Your task to perform on an android device: turn on sleep mode Image 0: 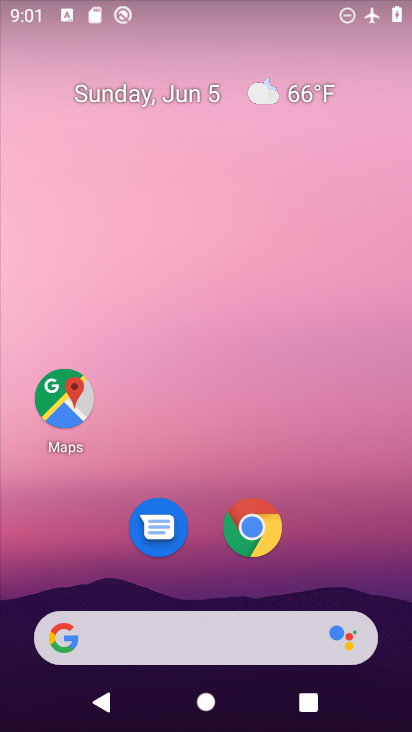
Step 0: drag from (195, 580) to (262, 9)
Your task to perform on an android device: turn on sleep mode Image 1: 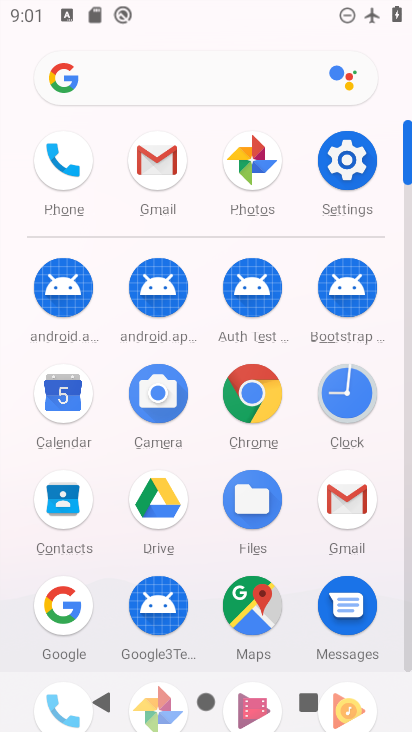
Step 1: click (343, 160)
Your task to perform on an android device: turn on sleep mode Image 2: 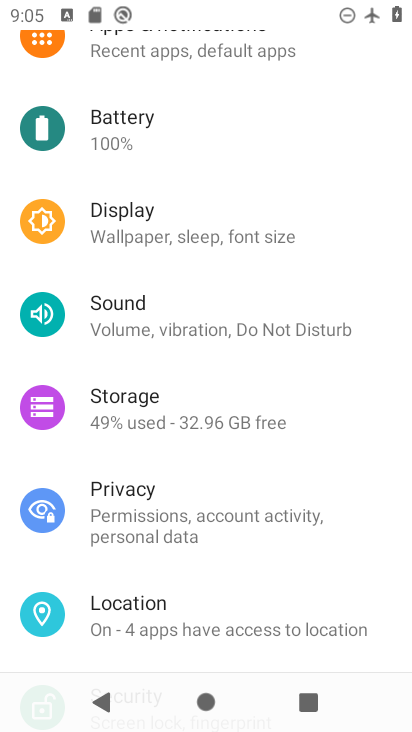
Step 2: task complete